Your task to perform on an android device: Check the weather Image 0: 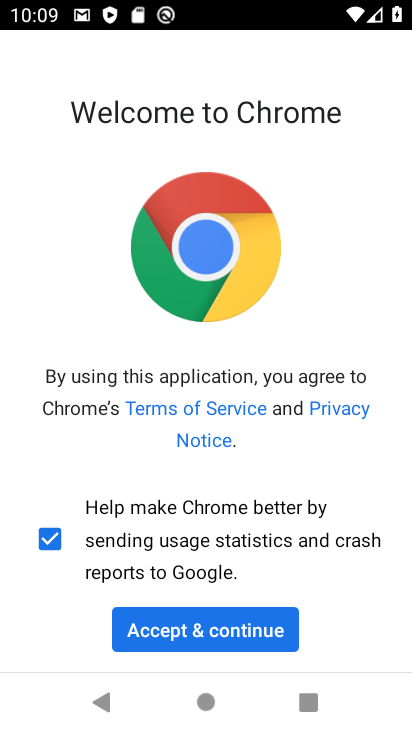
Step 0: press home button
Your task to perform on an android device: Check the weather Image 1: 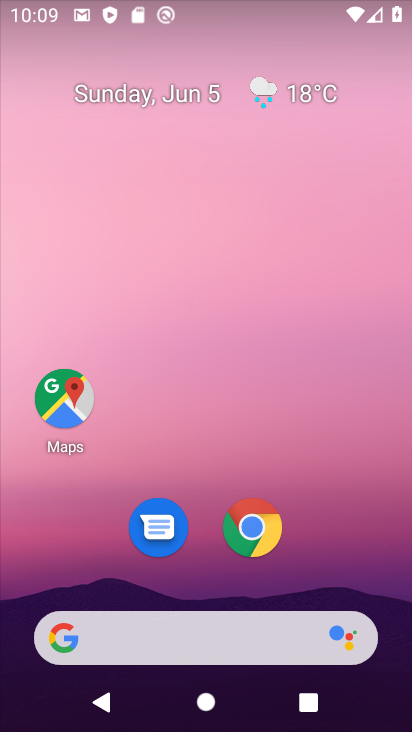
Step 1: click (139, 643)
Your task to perform on an android device: Check the weather Image 2: 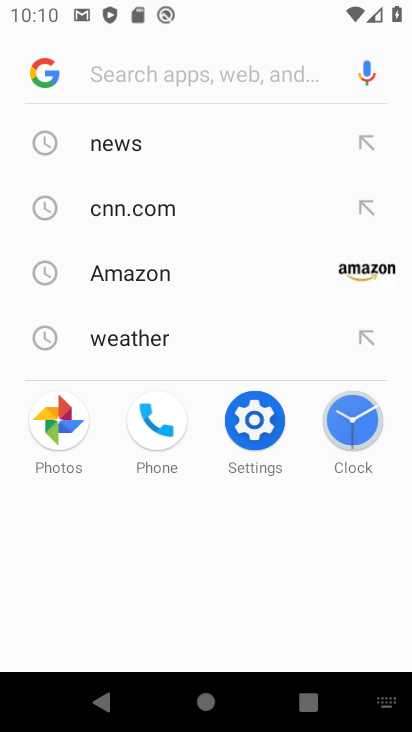
Step 2: click (100, 333)
Your task to perform on an android device: Check the weather Image 3: 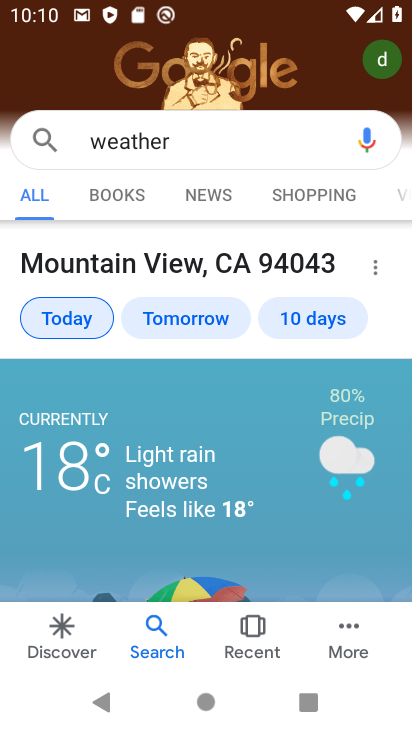
Step 3: task complete